Your task to perform on an android device: check google app version Image 0: 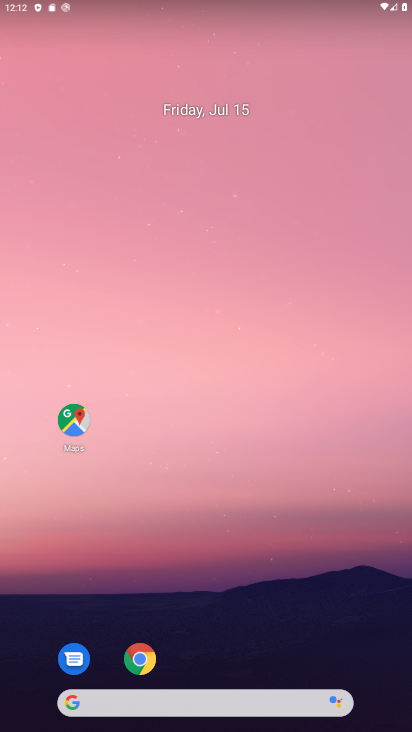
Step 0: drag from (216, 643) to (219, 203)
Your task to perform on an android device: check google app version Image 1: 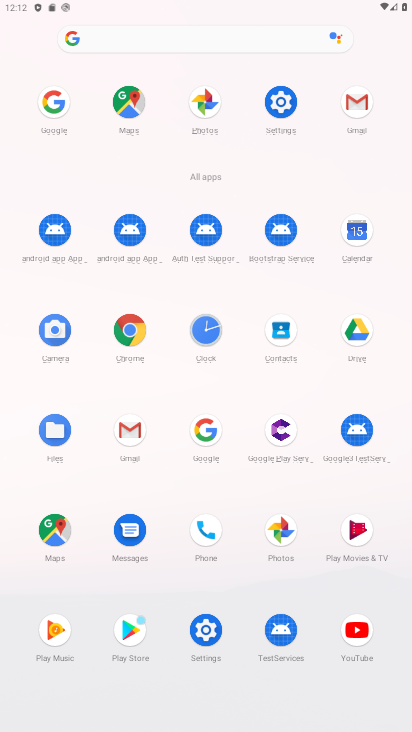
Step 1: click (41, 94)
Your task to perform on an android device: check google app version Image 2: 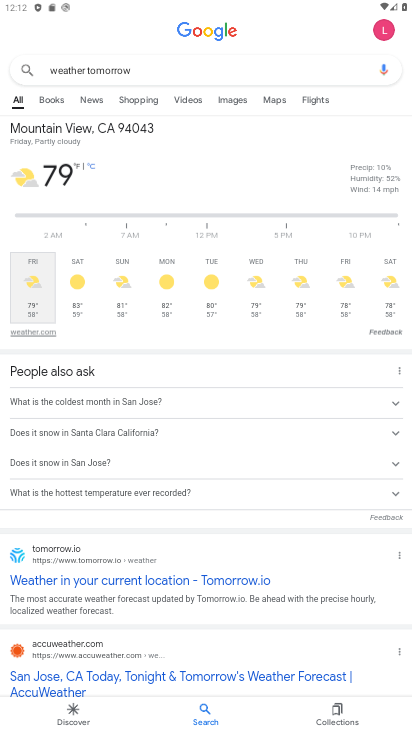
Step 2: click (336, 701)
Your task to perform on an android device: check google app version Image 3: 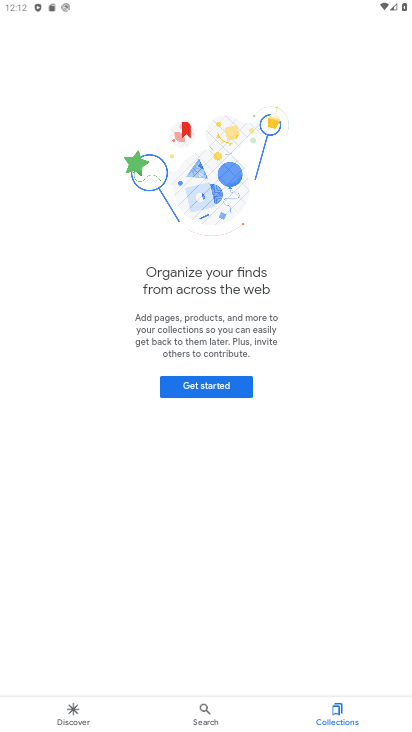
Step 3: press back button
Your task to perform on an android device: check google app version Image 4: 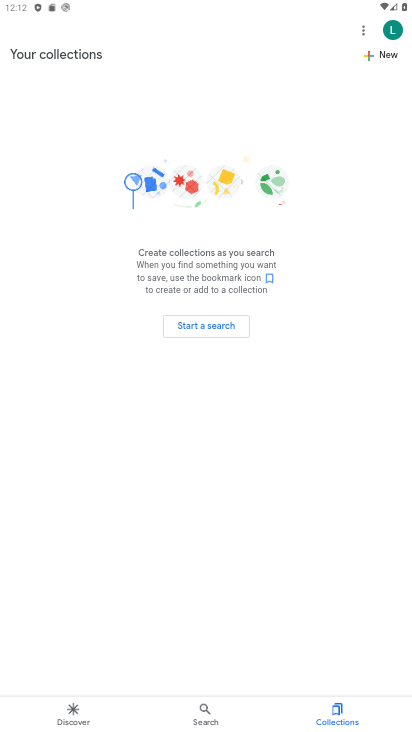
Step 4: click (364, 25)
Your task to perform on an android device: check google app version Image 5: 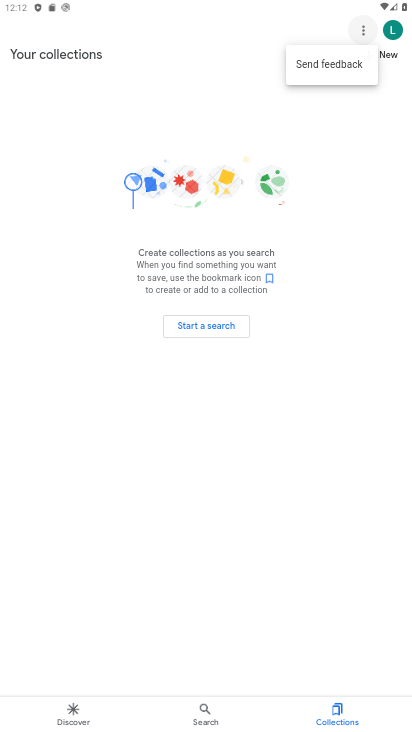
Step 5: press back button
Your task to perform on an android device: check google app version Image 6: 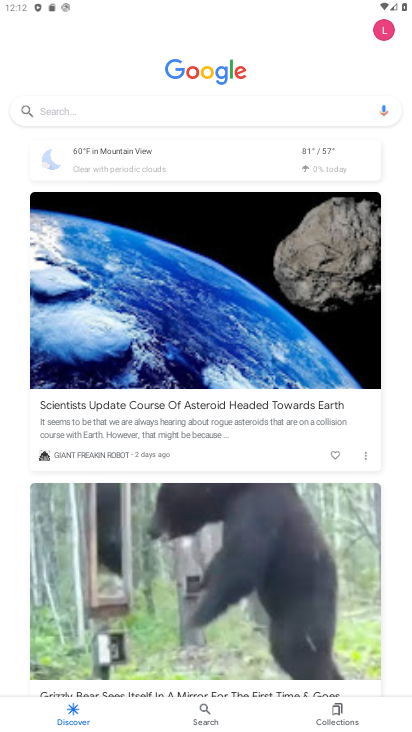
Step 6: click (385, 20)
Your task to perform on an android device: check google app version Image 7: 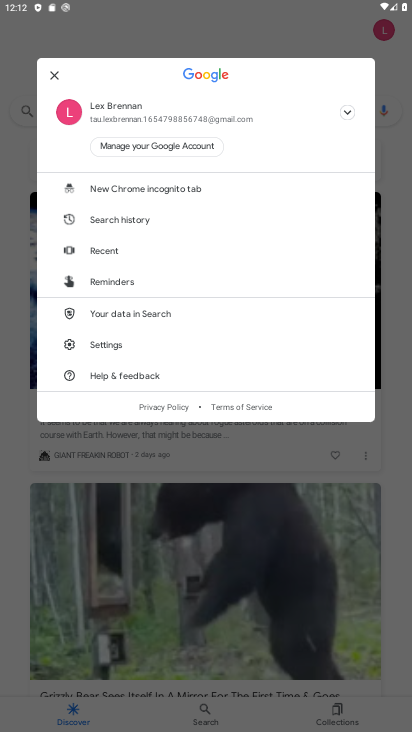
Step 7: click (99, 347)
Your task to perform on an android device: check google app version Image 8: 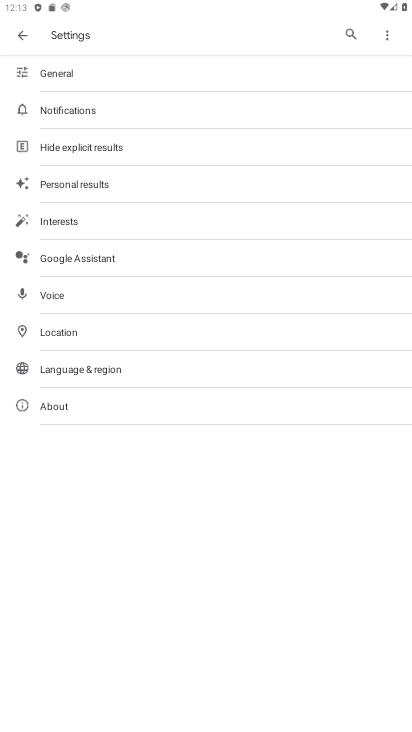
Step 8: click (114, 406)
Your task to perform on an android device: check google app version Image 9: 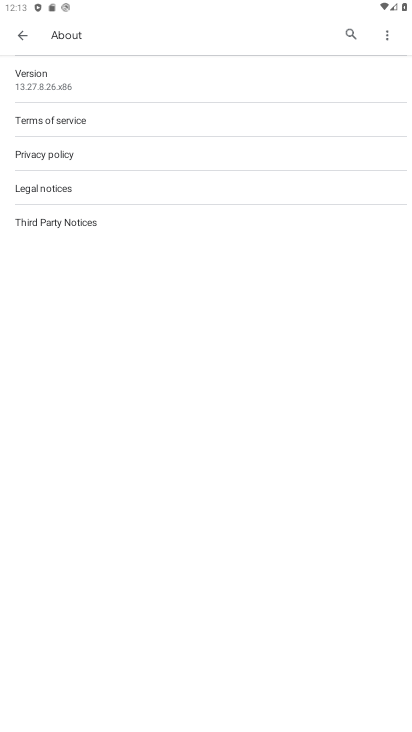
Step 9: click (90, 76)
Your task to perform on an android device: check google app version Image 10: 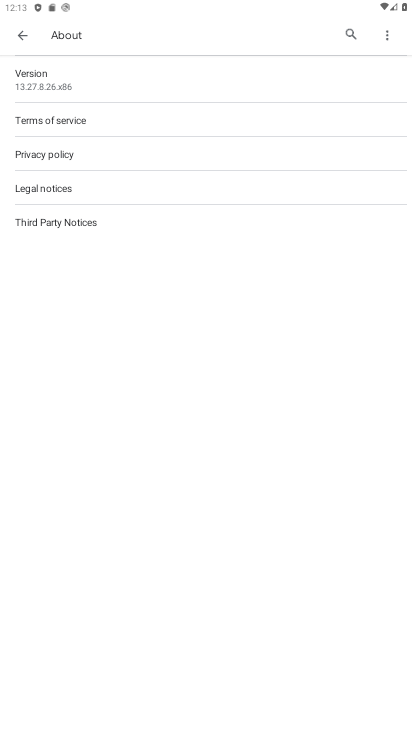
Step 10: click (54, 85)
Your task to perform on an android device: check google app version Image 11: 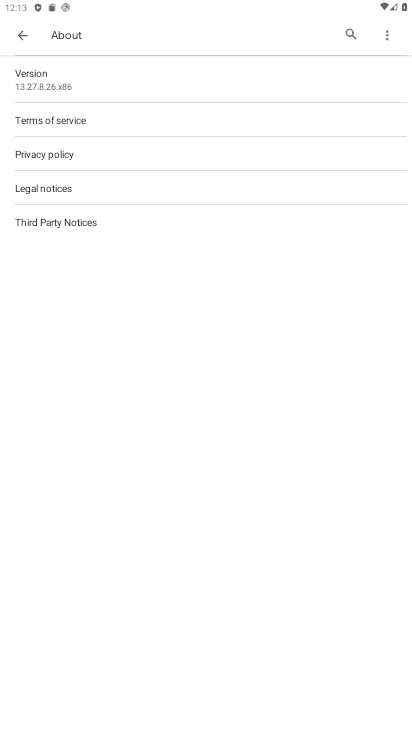
Step 11: task complete